Your task to perform on an android device: refresh tabs in the chrome app Image 0: 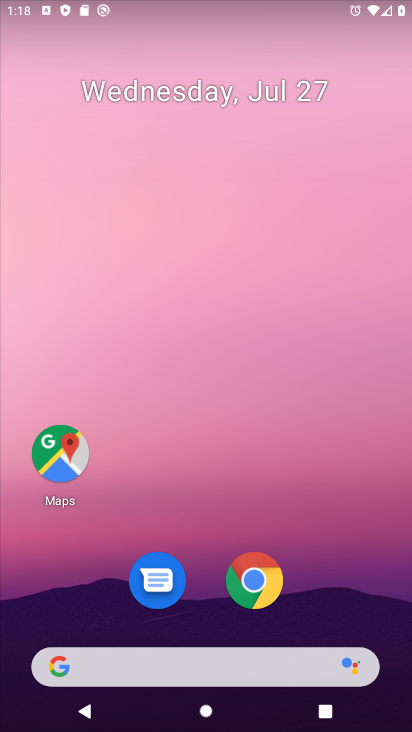
Step 0: click (251, 593)
Your task to perform on an android device: refresh tabs in the chrome app Image 1: 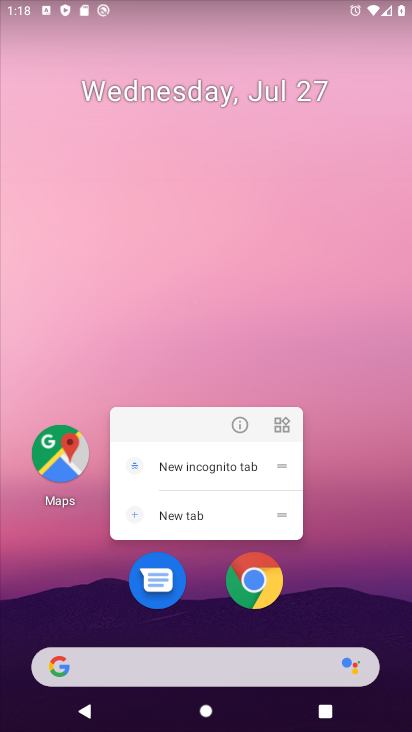
Step 1: click (253, 584)
Your task to perform on an android device: refresh tabs in the chrome app Image 2: 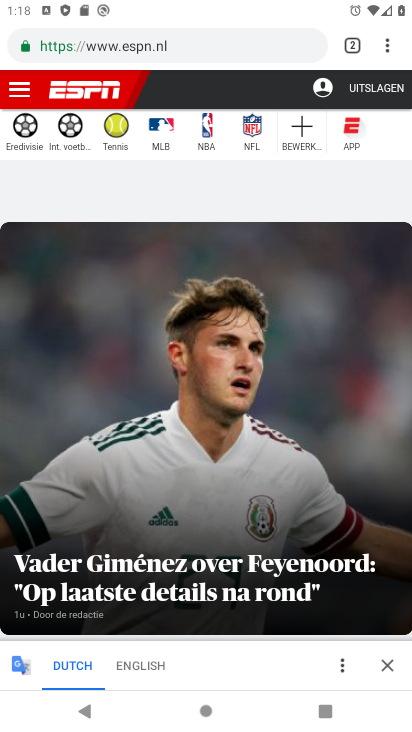
Step 2: click (383, 54)
Your task to perform on an android device: refresh tabs in the chrome app Image 3: 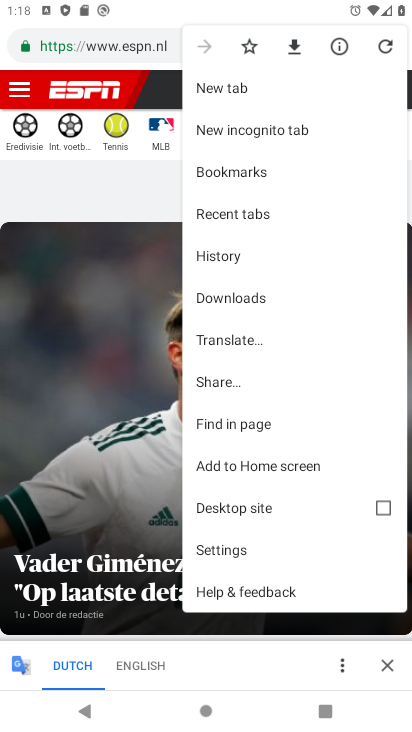
Step 3: click (383, 46)
Your task to perform on an android device: refresh tabs in the chrome app Image 4: 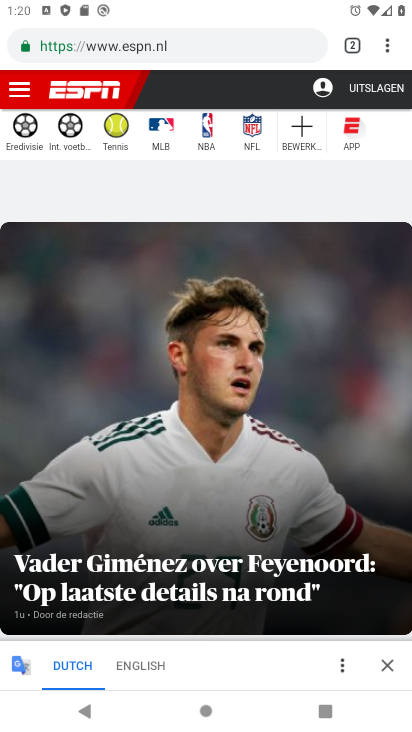
Step 4: task complete